Your task to perform on an android device: turn on javascript in the chrome app Image 0: 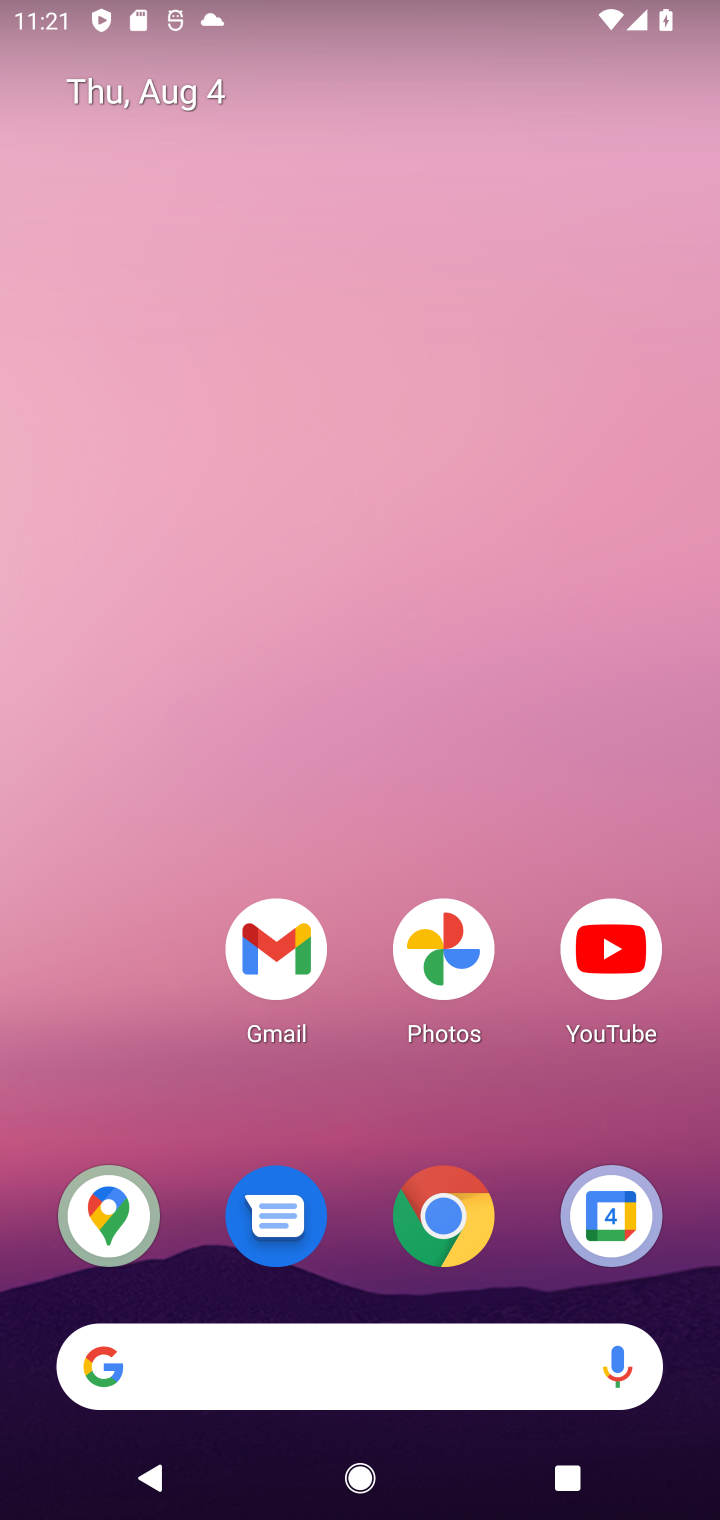
Step 0: click (443, 1217)
Your task to perform on an android device: turn on javascript in the chrome app Image 1: 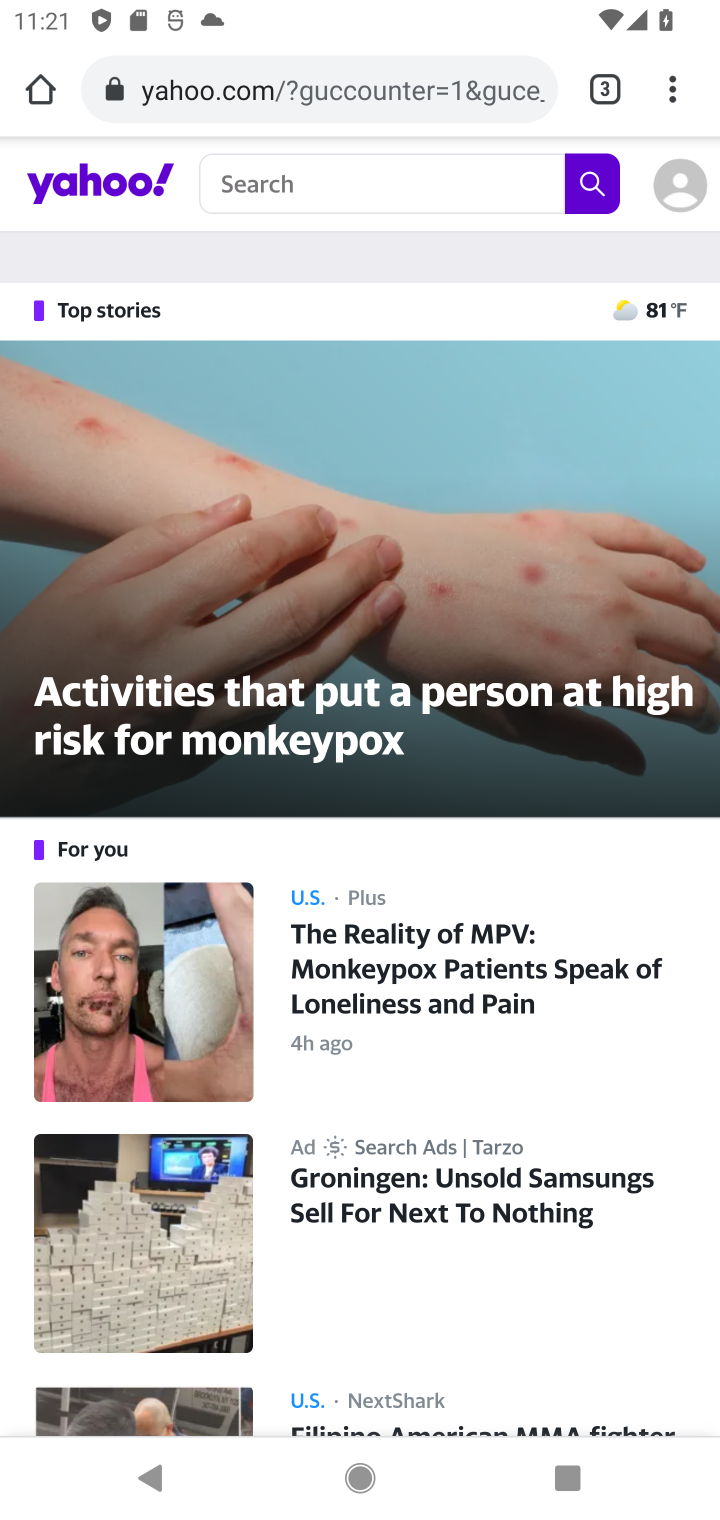
Step 1: click (672, 96)
Your task to perform on an android device: turn on javascript in the chrome app Image 2: 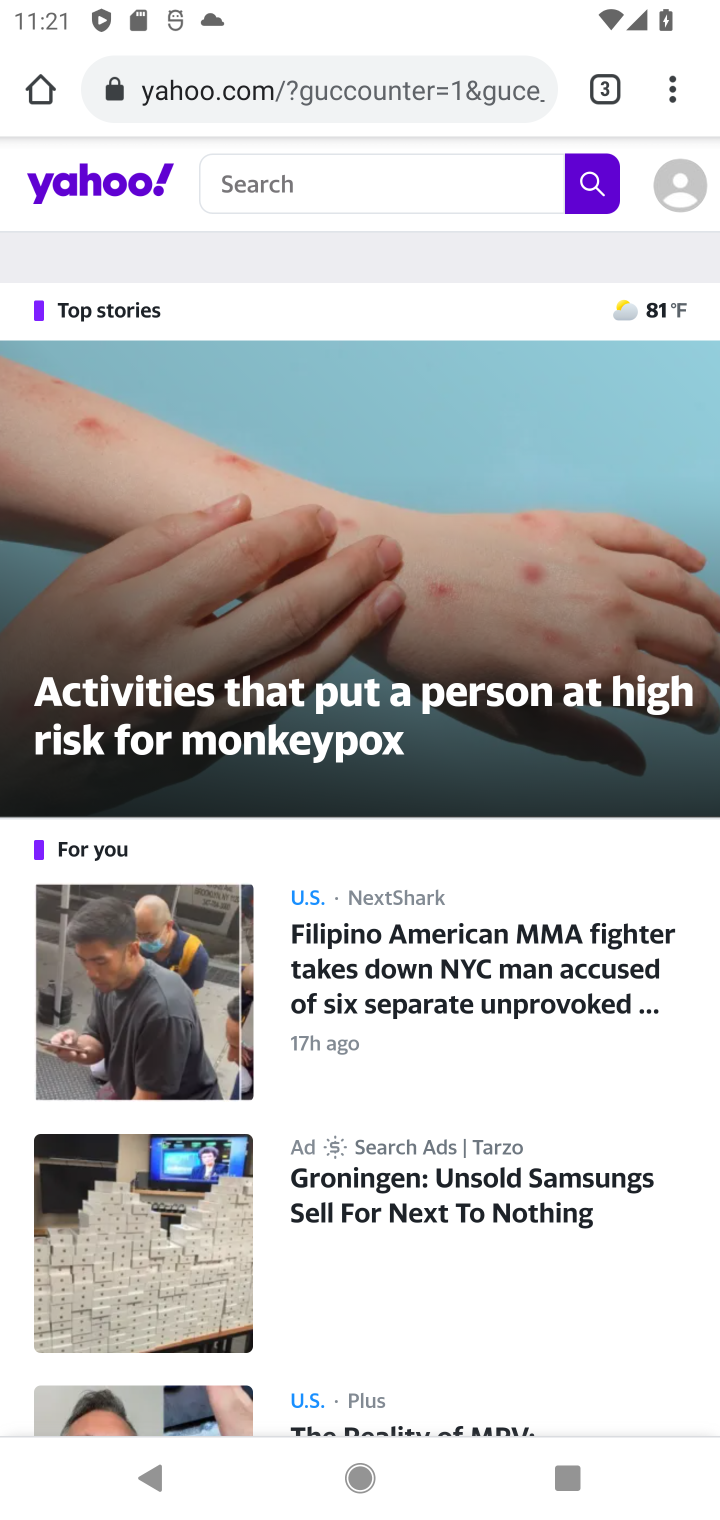
Step 2: drag from (672, 96) to (498, 1258)
Your task to perform on an android device: turn on javascript in the chrome app Image 3: 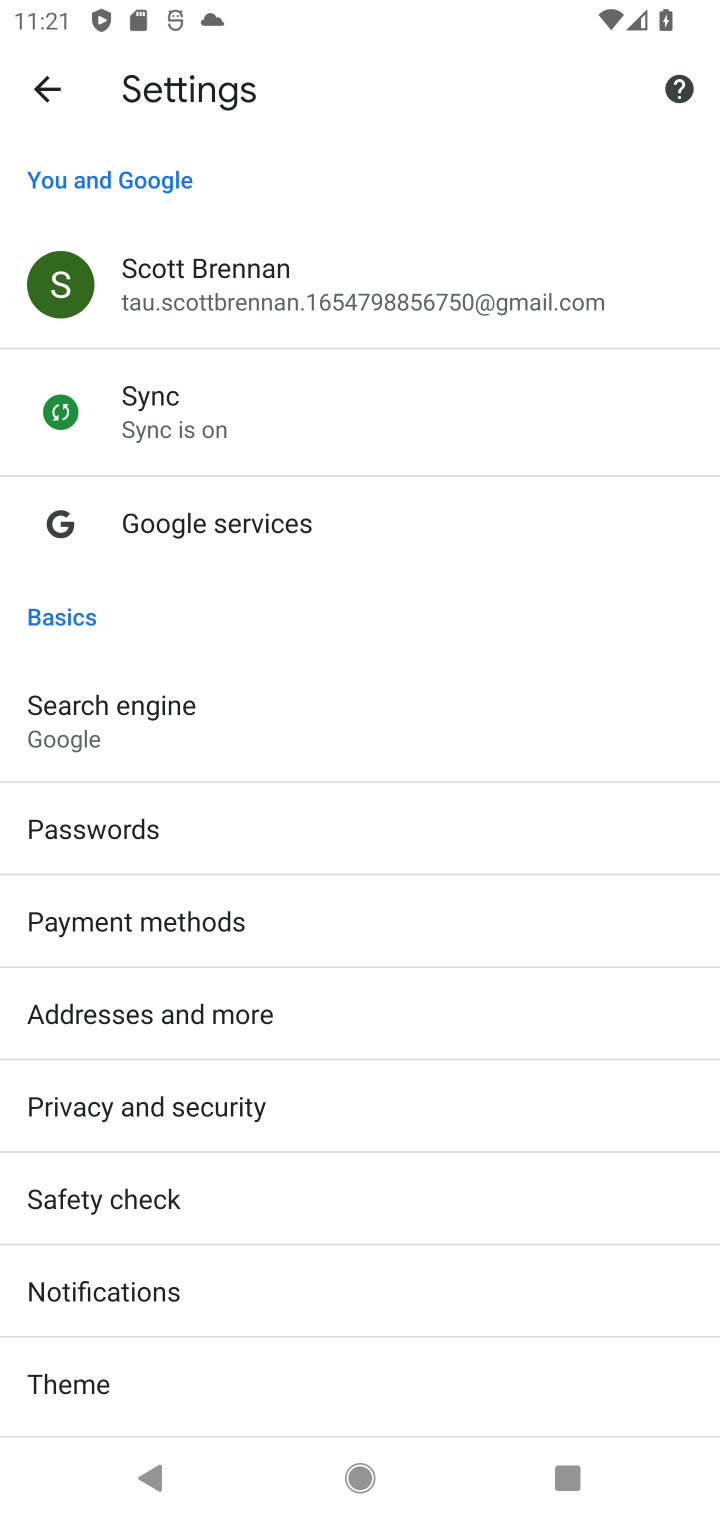
Step 3: drag from (160, 1251) to (305, 1004)
Your task to perform on an android device: turn on javascript in the chrome app Image 4: 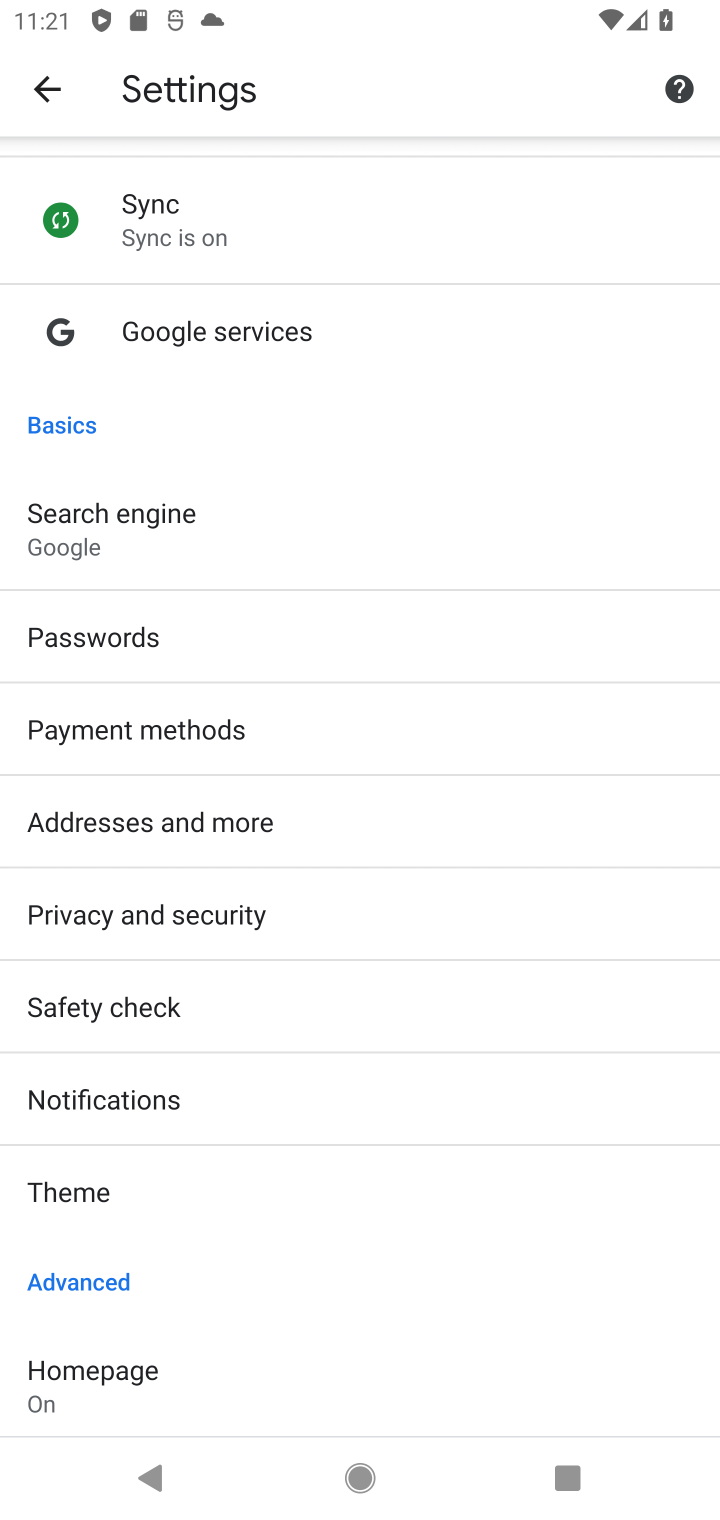
Step 4: drag from (160, 1214) to (286, 1002)
Your task to perform on an android device: turn on javascript in the chrome app Image 5: 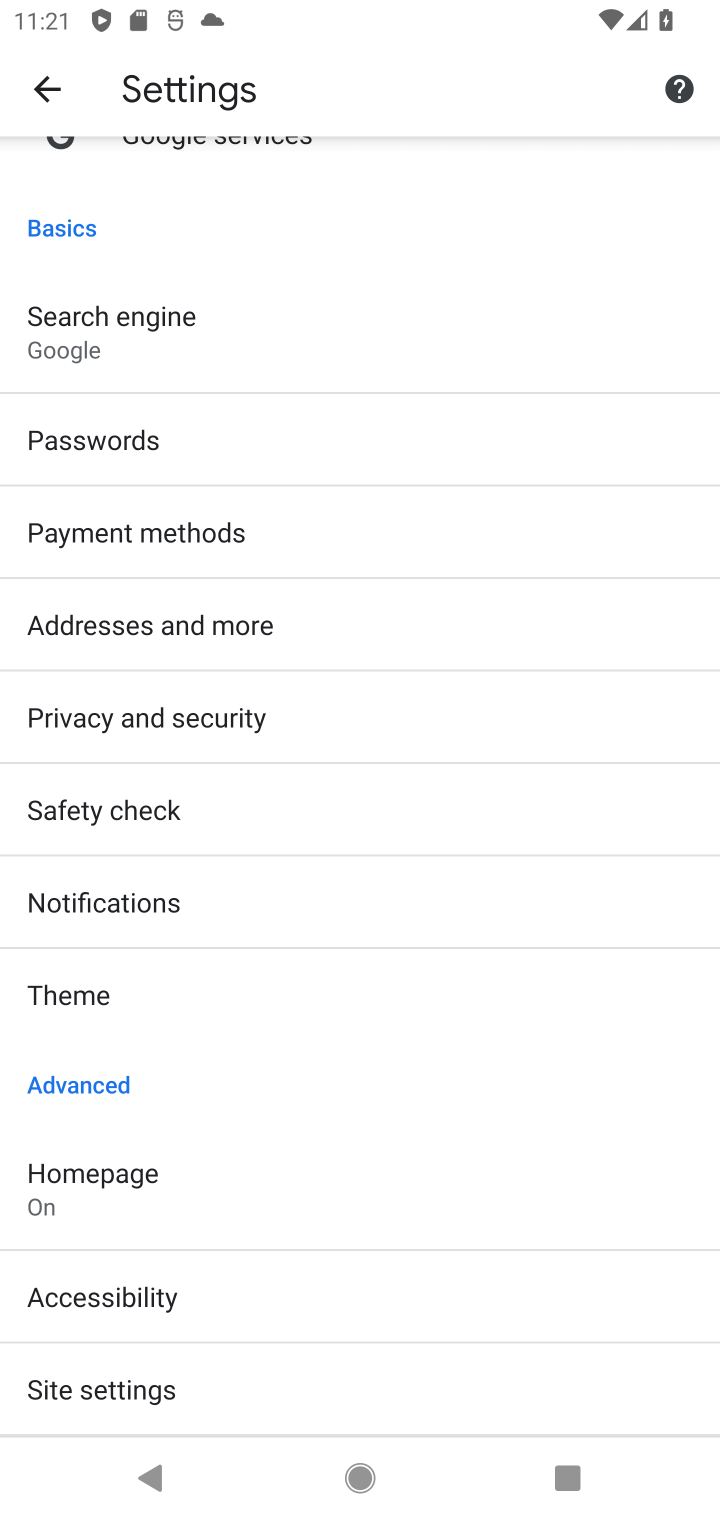
Step 5: drag from (184, 1260) to (327, 1042)
Your task to perform on an android device: turn on javascript in the chrome app Image 6: 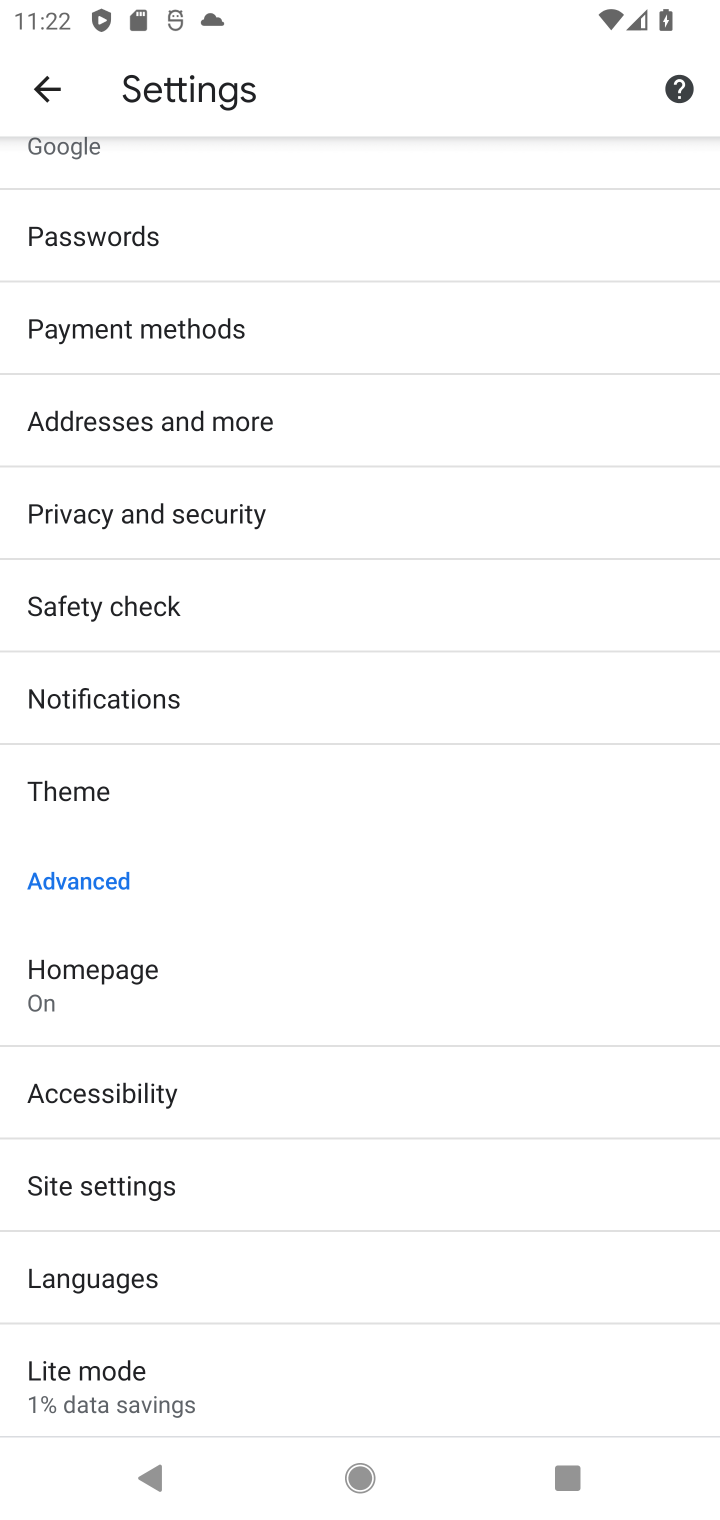
Step 6: click (124, 1191)
Your task to perform on an android device: turn on javascript in the chrome app Image 7: 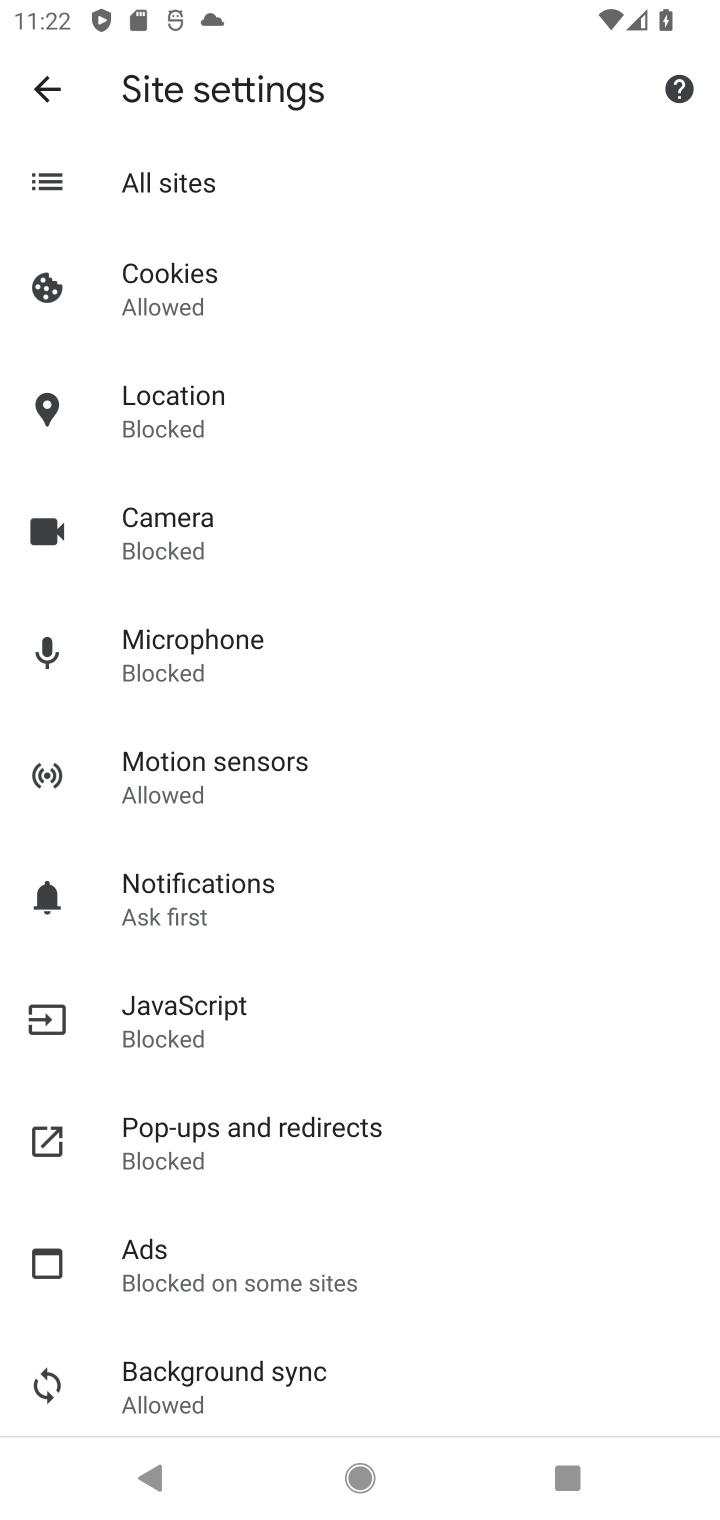
Step 7: click (242, 1007)
Your task to perform on an android device: turn on javascript in the chrome app Image 8: 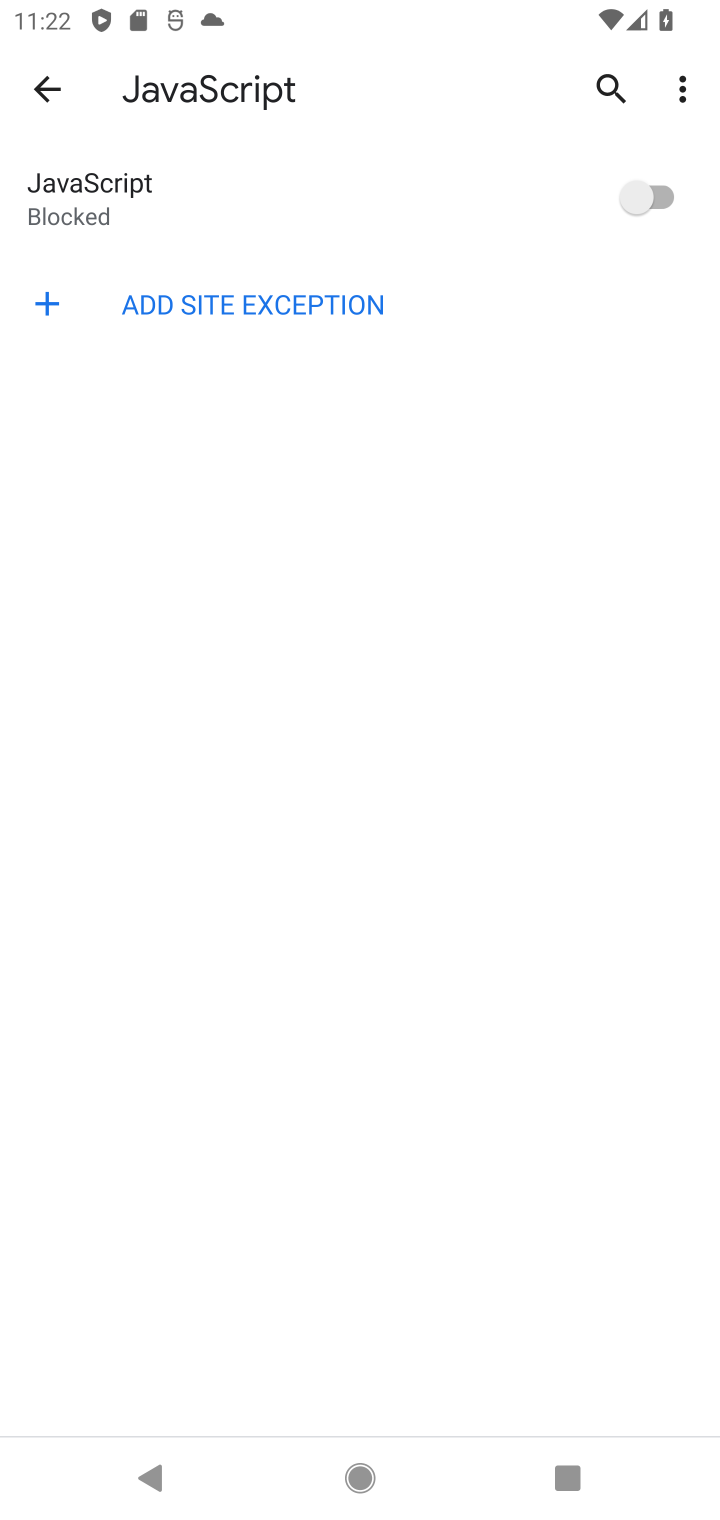
Step 8: click (648, 197)
Your task to perform on an android device: turn on javascript in the chrome app Image 9: 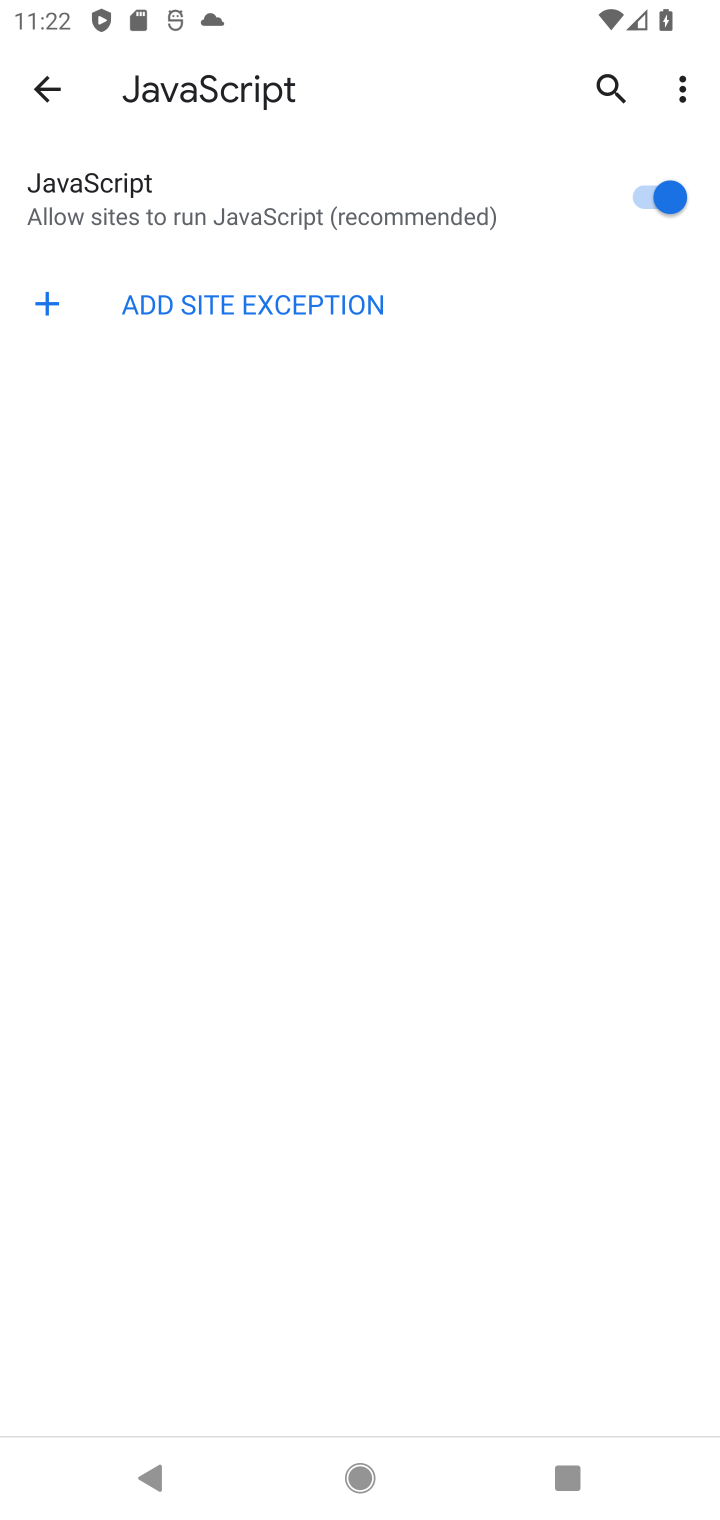
Step 9: task complete